Your task to perform on an android device: Go to privacy settings Image 0: 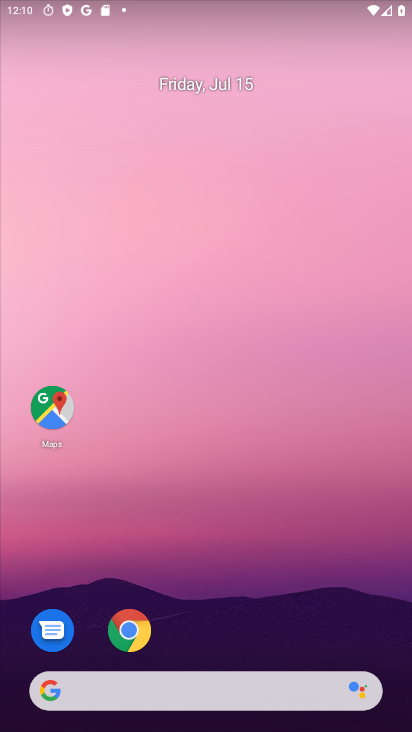
Step 0: click (185, 214)
Your task to perform on an android device: Go to privacy settings Image 1: 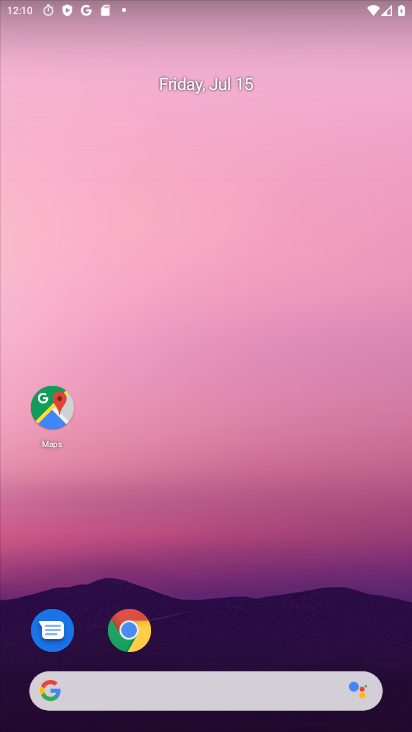
Step 1: drag from (239, 456) to (252, 317)
Your task to perform on an android device: Go to privacy settings Image 2: 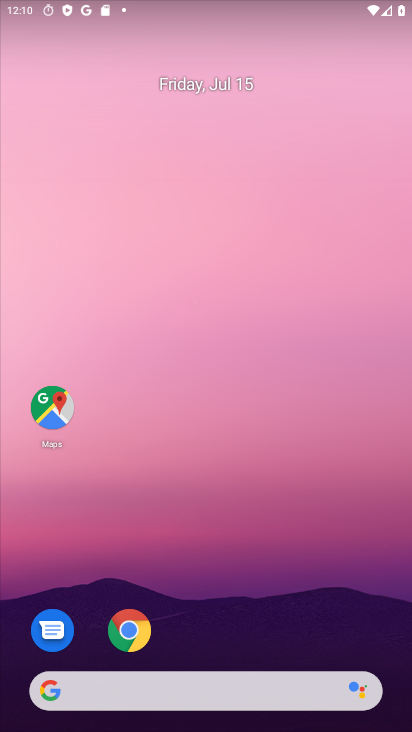
Step 2: drag from (197, 511) to (210, 193)
Your task to perform on an android device: Go to privacy settings Image 3: 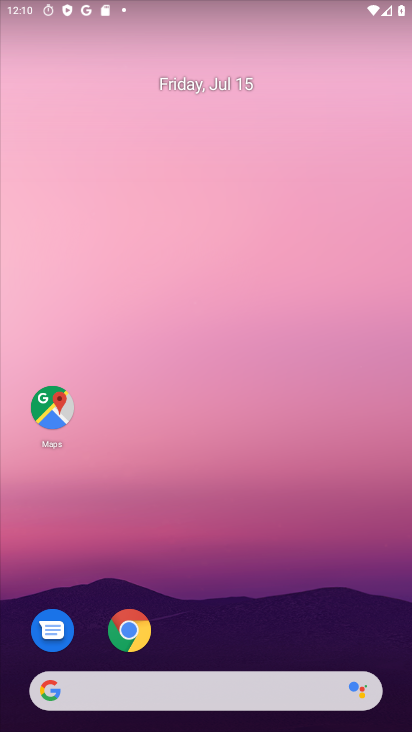
Step 3: drag from (194, 599) to (239, 180)
Your task to perform on an android device: Go to privacy settings Image 4: 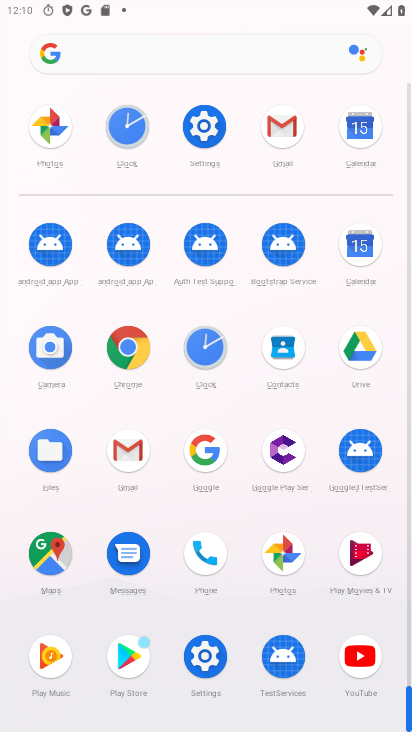
Step 4: click (213, 126)
Your task to perform on an android device: Go to privacy settings Image 5: 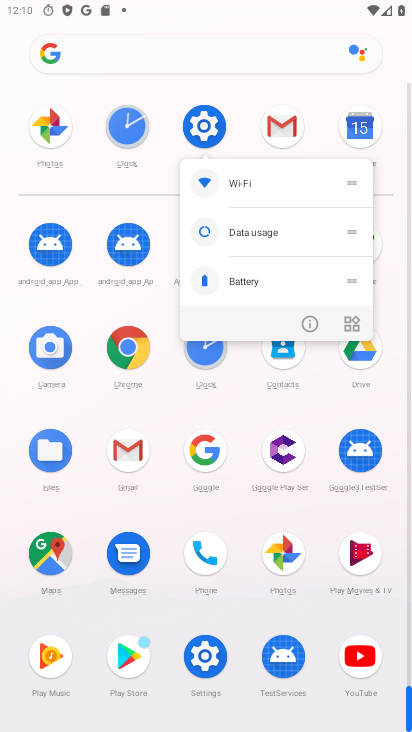
Step 5: click (311, 326)
Your task to perform on an android device: Go to privacy settings Image 6: 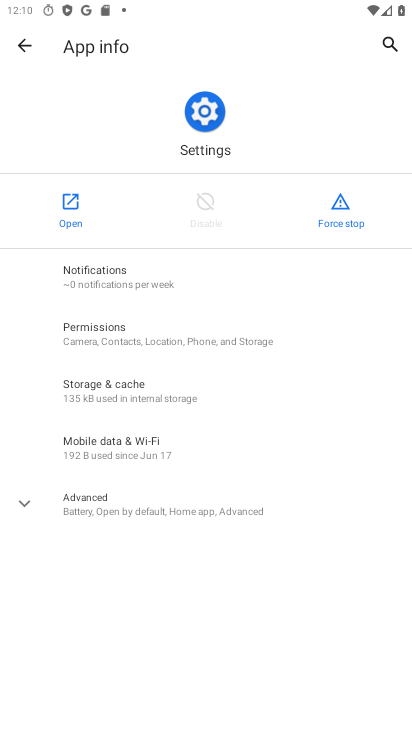
Step 6: click (65, 208)
Your task to perform on an android device: Go to privacy settings Image 7: 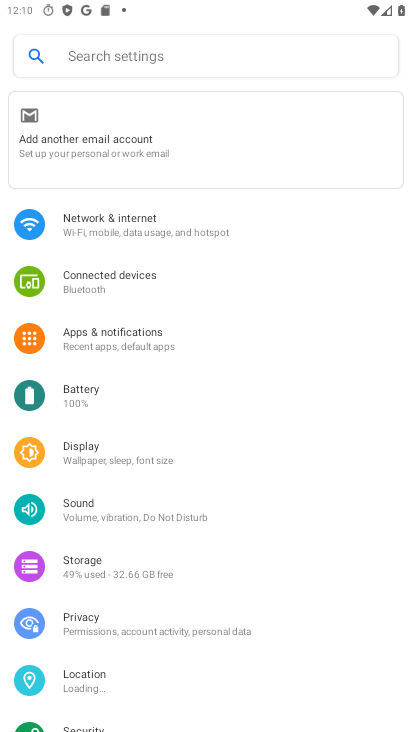
Step 7: click (98, 617)
Your task to perform on an android device: Go to privacy settings Image 8: 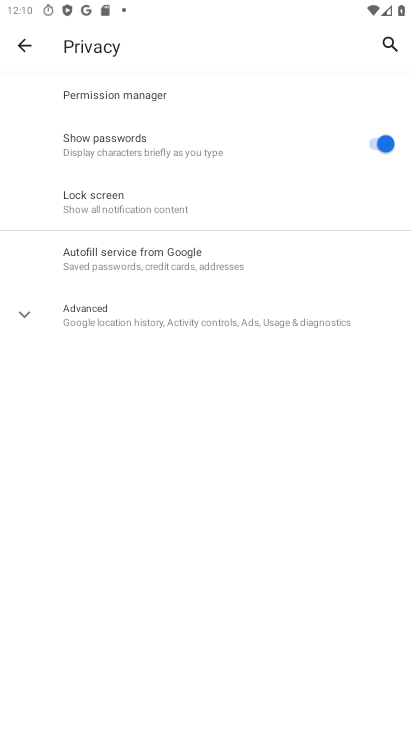
Step 8: task complete